Your task to perform on an android device: snooze an email in the gmail app Image 0: 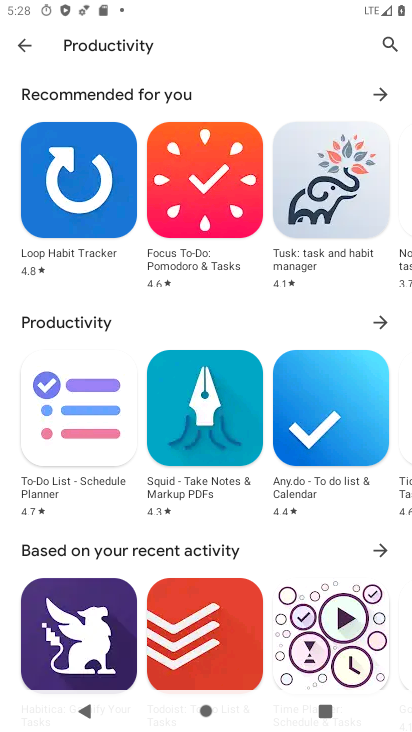
Step 0: press home button
Your task to perform on an android device: snooze an email in the gmail app Image 1: 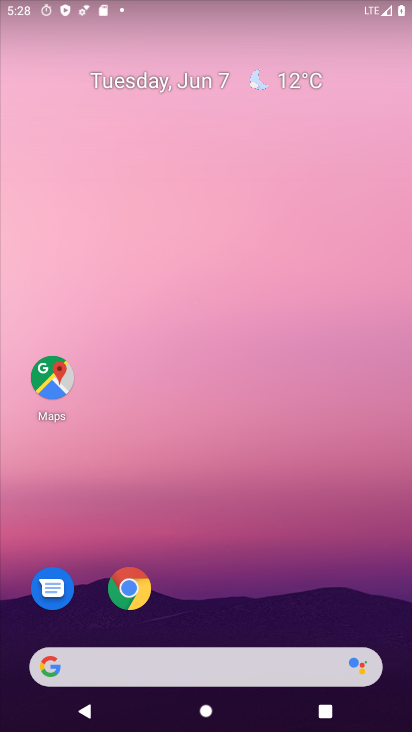
Step 1: drag from (219, 593) to (254, 44)
Your task to perform on an android device: snooze an email in the gmail app Image 2: 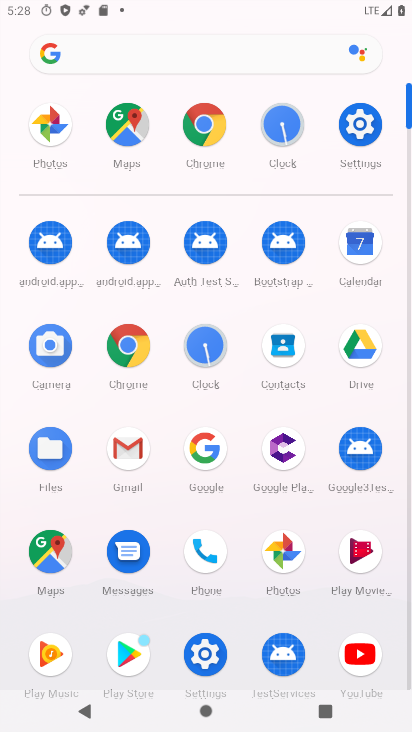
Step 2: click (129, 479)
Your task to perform on an android device: snooze an email in the gmail app Image 3: 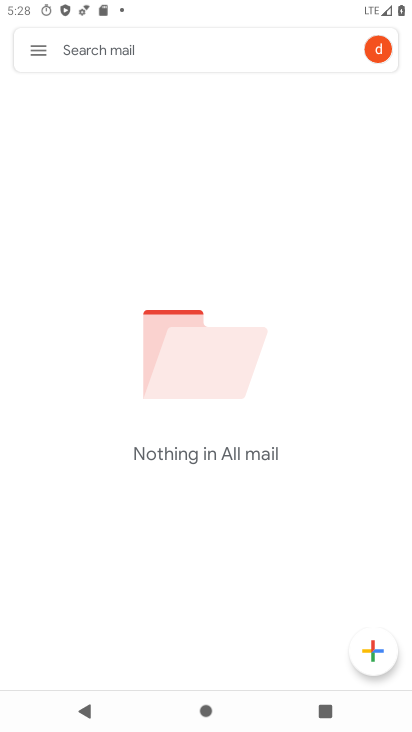
Step 3: click (41, 49)
Your task to perform on an android device: snooze an email in the gmail app Image 4: 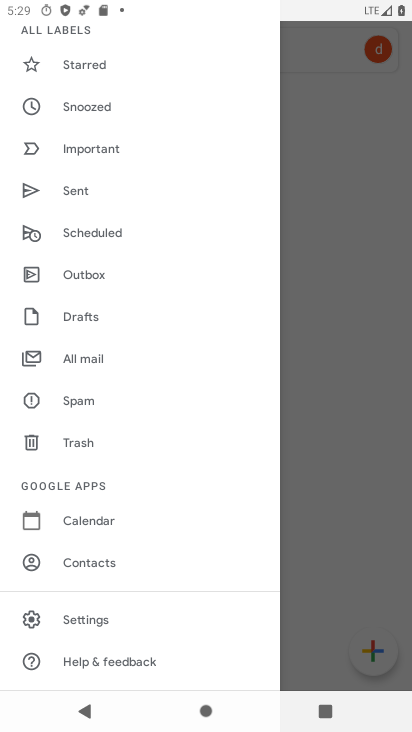
Step 4: click (80, 347)
Your task to perform on an android device: snooze an email in the gmail app Image 5: 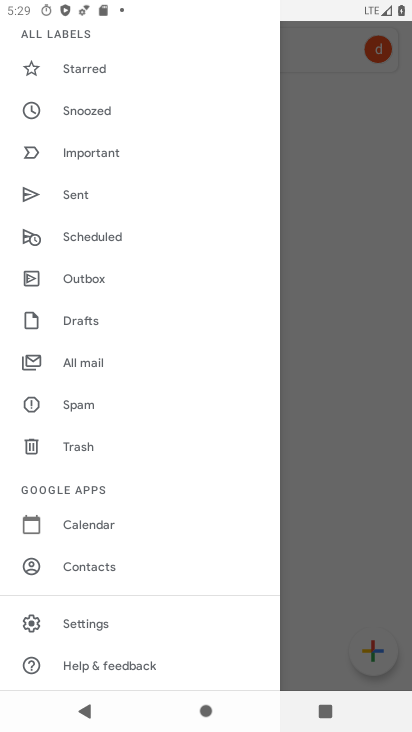
Step 5: click (79, 362)
Your task to perform on an android device: snooze an email in the gmail app Image 6: 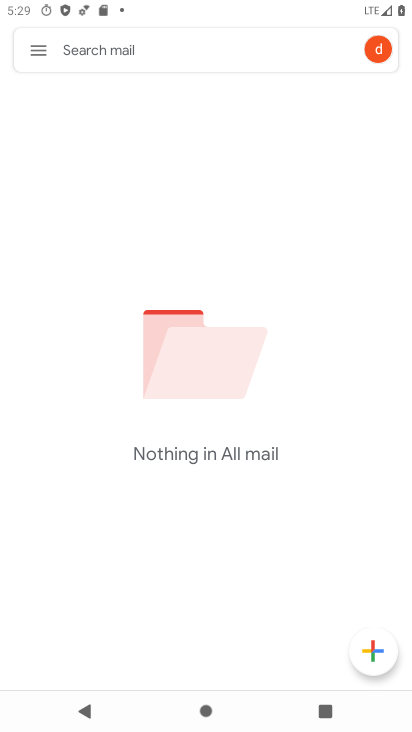
Step 6: task complete